Your task to perform on an android device: What's the news in Brazil? Image 0: 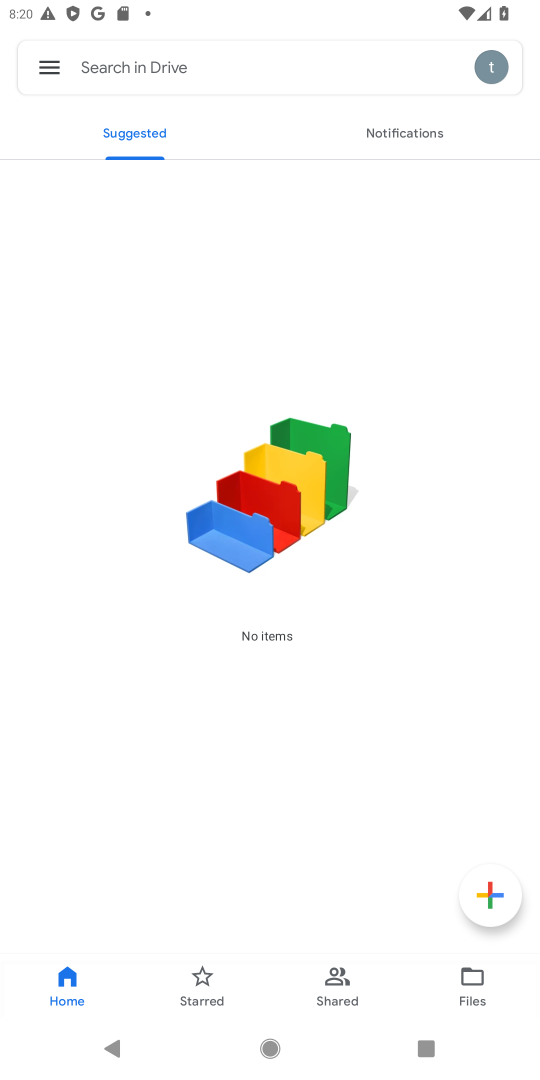
Step 0: press home button
Your task to perform on an android device: What's the news in Brazil? Image 1: 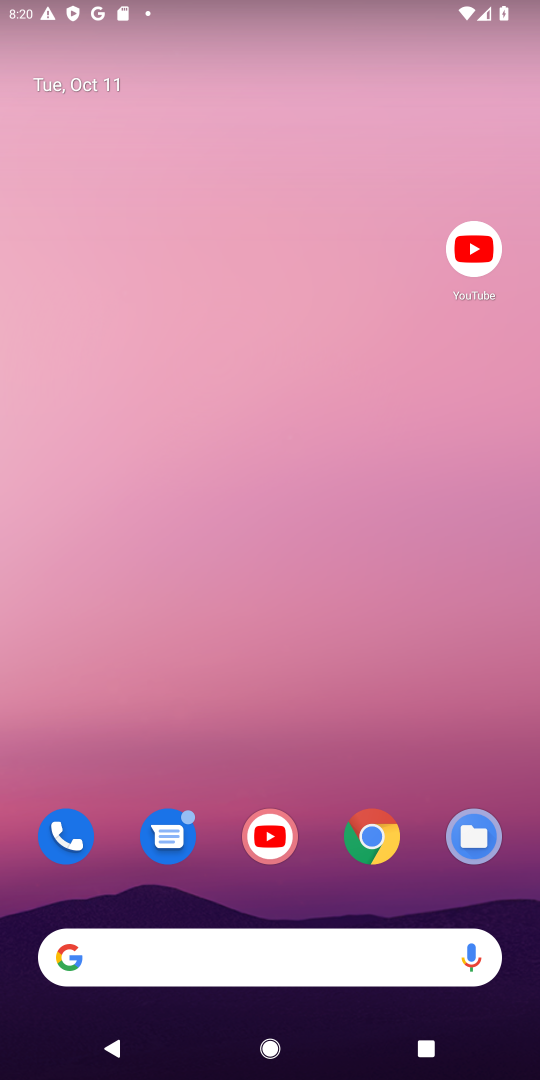
Step 1: click (372, 835)
Your task to perform on an android device: What's the news in Brazil? Image 2: 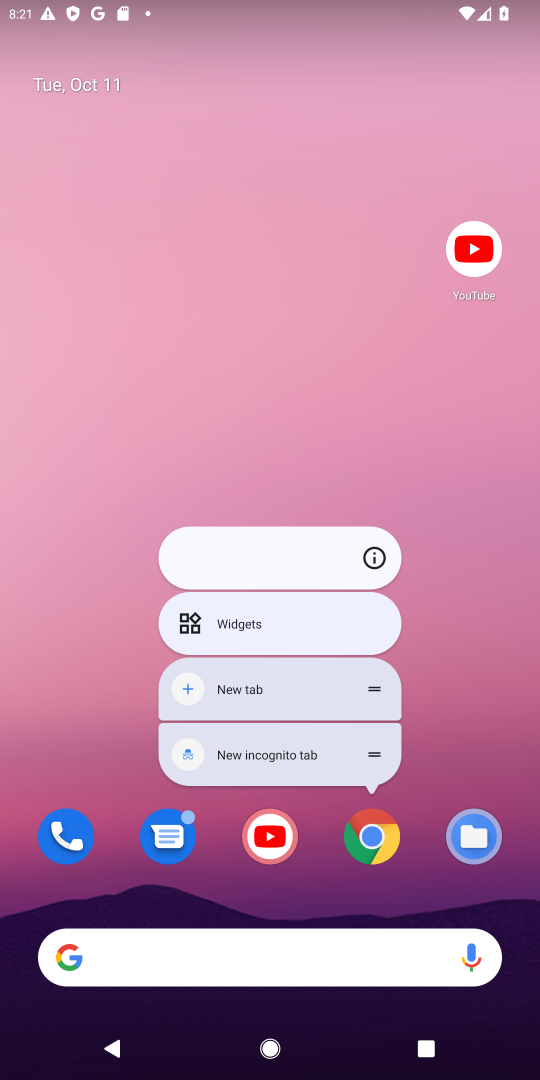
Step 2: click (372, 835)
Your task to perform on an android device: What's the news in Brazil? Image 3: 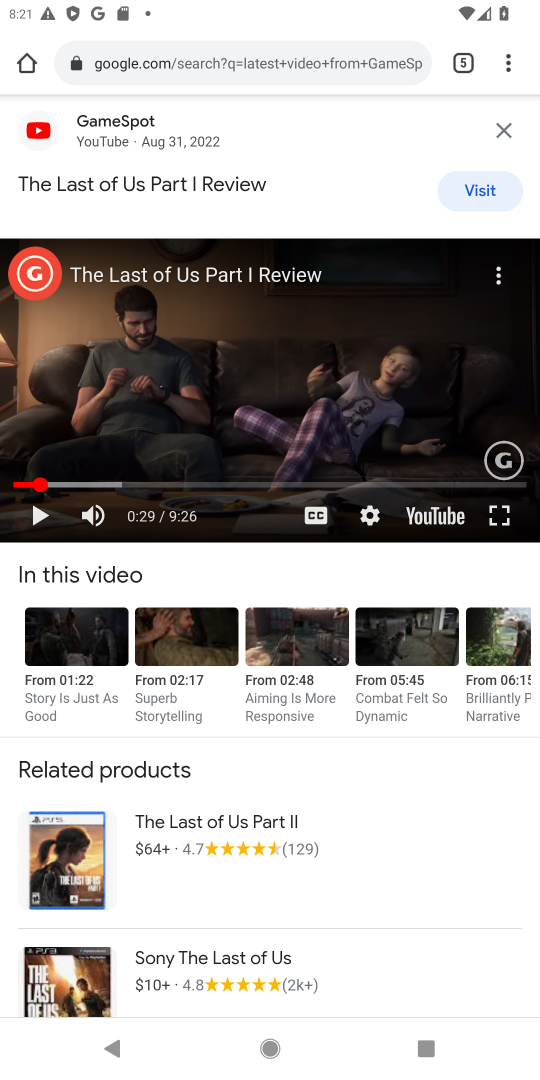
Step 3: click (359, 59)
Your task to perform on an android device: What's the news in Brazil? Image 4: 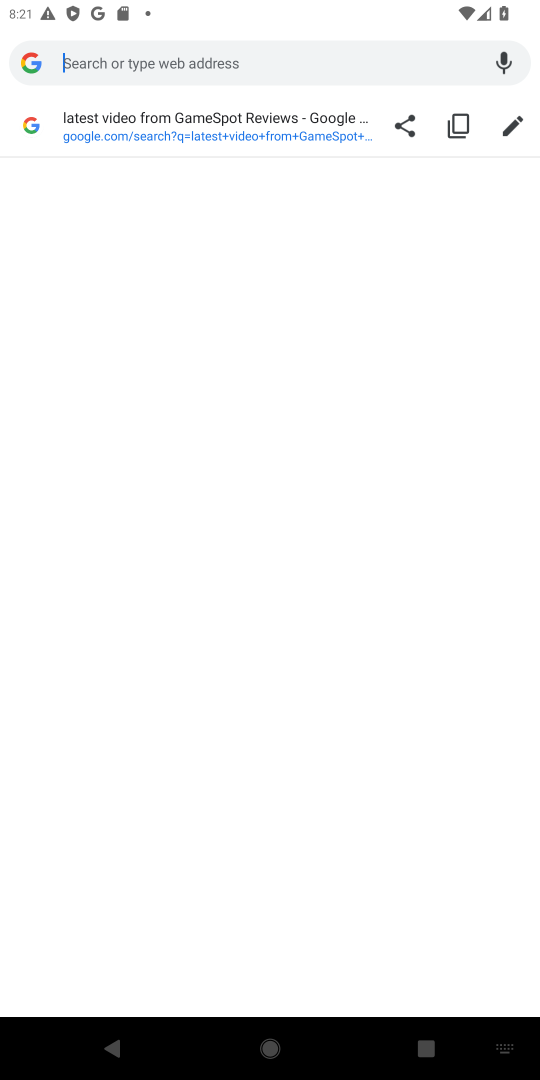
Step 4: type "news in Brazil"
Your task to perform on an android device: What's the news in Brazil? Image 5: 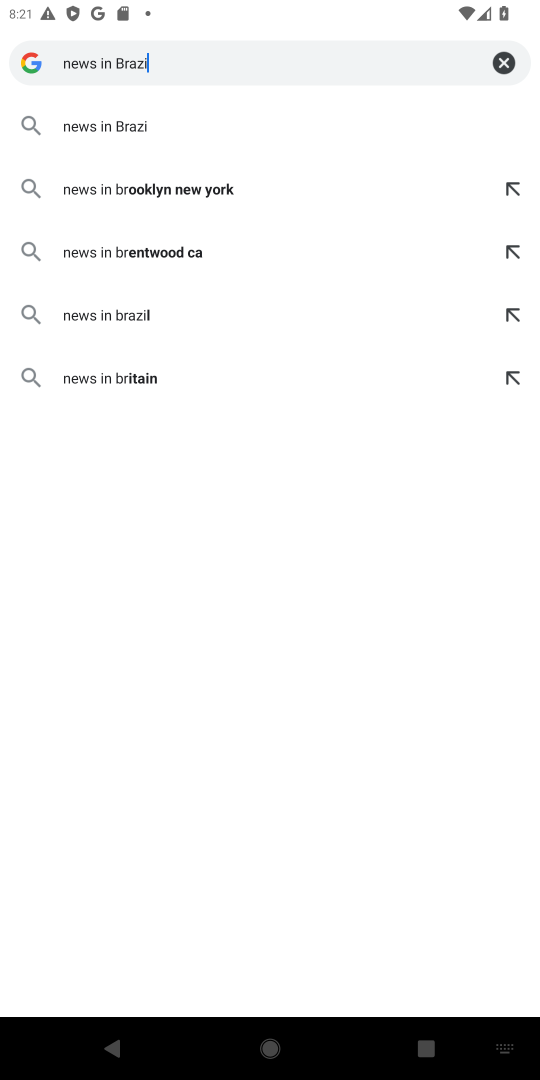
Step 5: press enter
Your task to perform on an android device: What's the news in Brazil? Image 6: 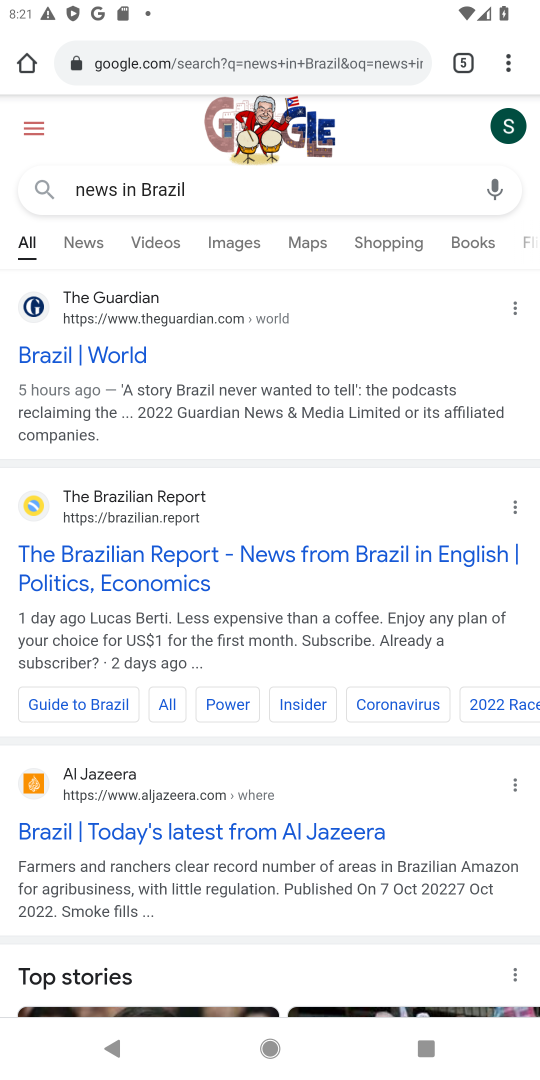
Step 6: drag from (267, 738) to (428, 433)
Your task to perform on an android device: What's the news in Brazil? Image 7: 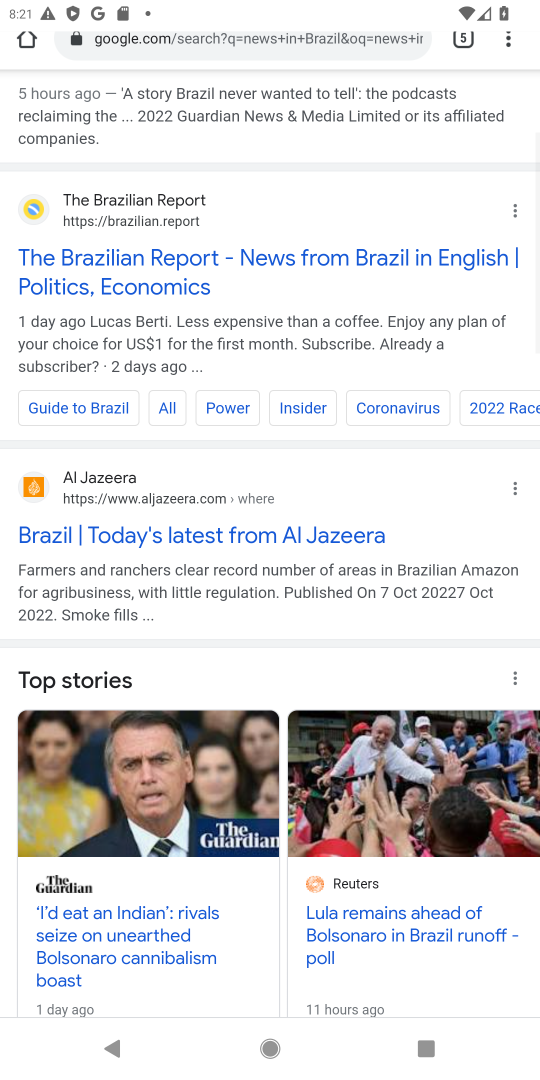
Step 7: drag from (269, 405) to (229, 676)
Your task to perform on an android device: What's the news in Brazil? Image 8: 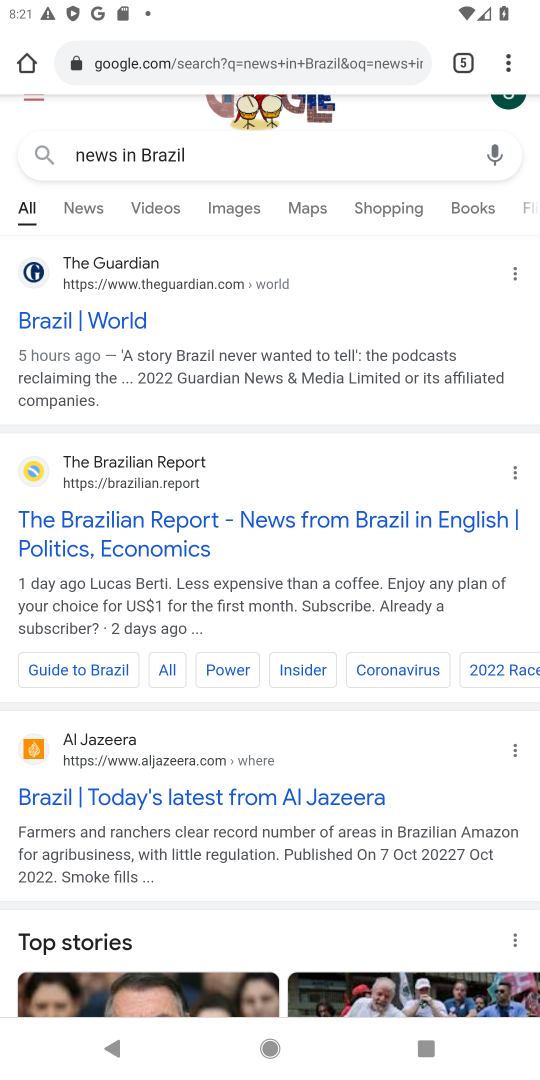
Step 8: click (91, 161)
Your task to perform on an android device: What's the news in Brazil? Image 9: 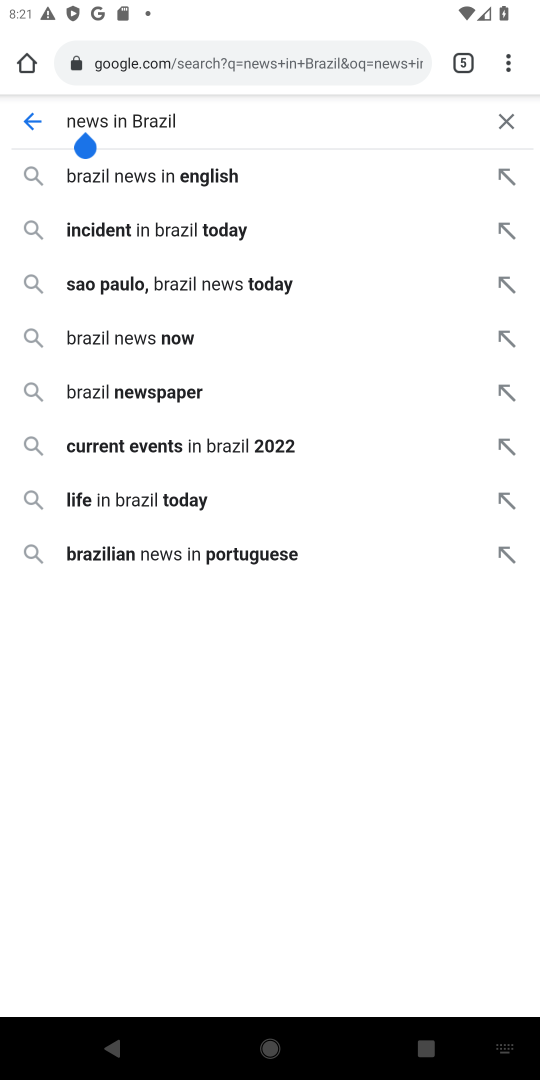
Step 9: click (32, 117)
Your task to perform on an android device: What's the news in Brazil? Image 10: 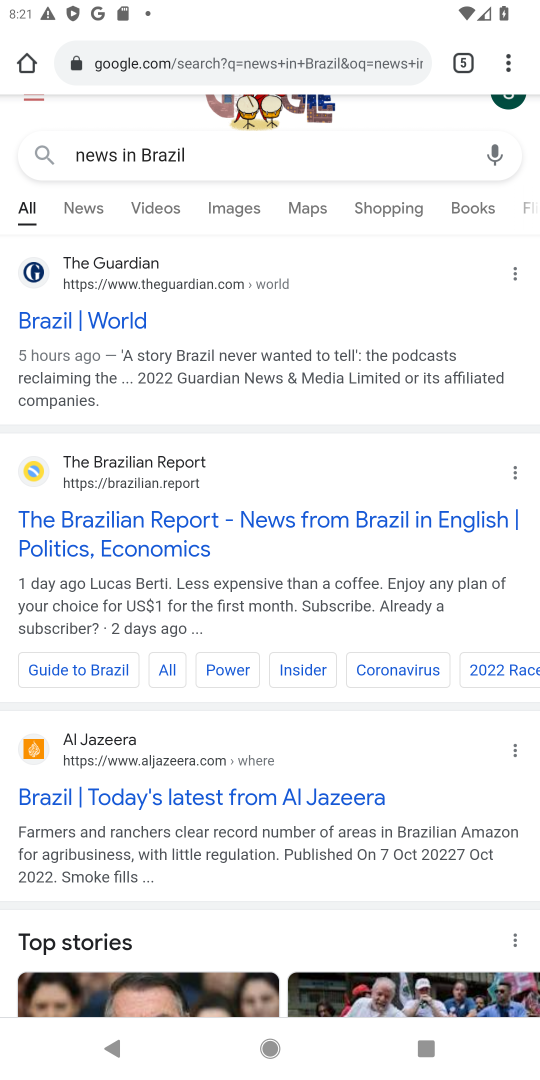
Step 10: click (74, 206)
Your task to perform on an android device: What's the news in Brazil? Image 11: 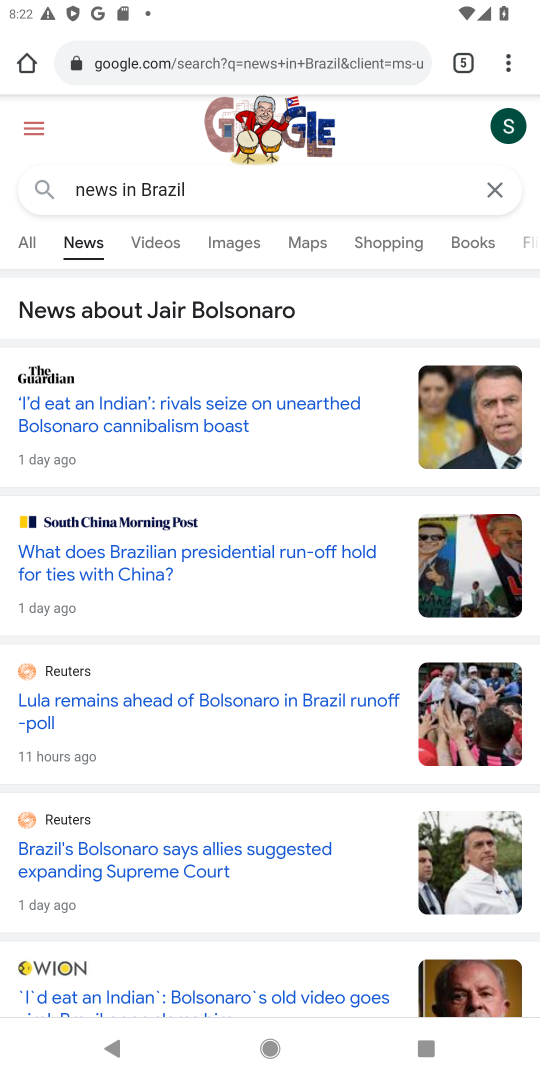
Step 11: task complete